Your task to perform on an android device: Toggle the flashlight Image 0: 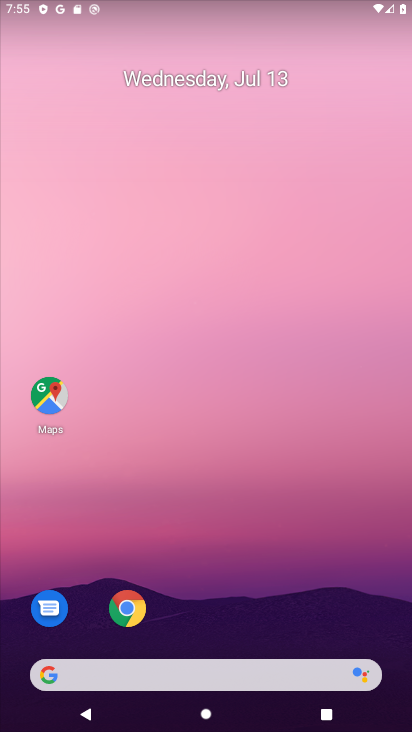
Step 0: drag from (255, 696) to (233, 207)
Your task to perform on an android device: Toggle the flashlight Image 1: 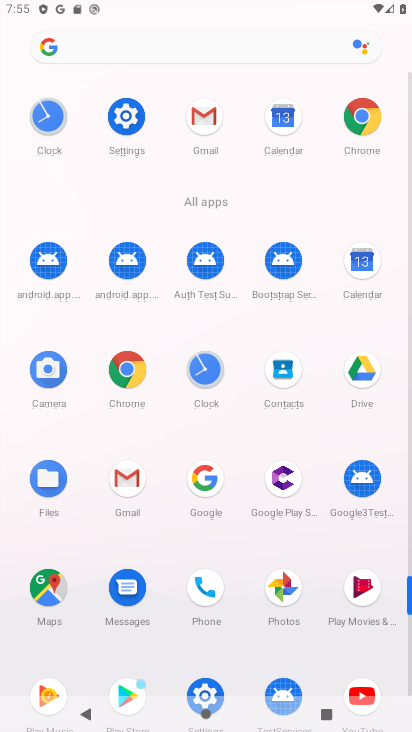
Step 1: task complete